Your task to perform on an android device: Search for Mexican restaurants on Maps Image 0: 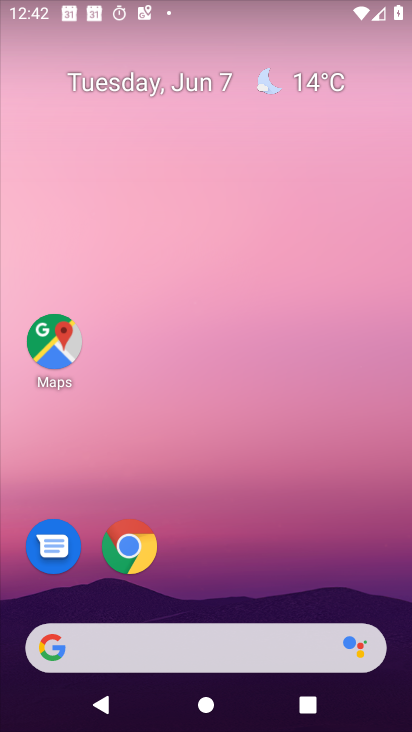
Step 0: click (27, 348)
Your task to perform on an android device: Search for Mexican restaurants on Maps Image 1: 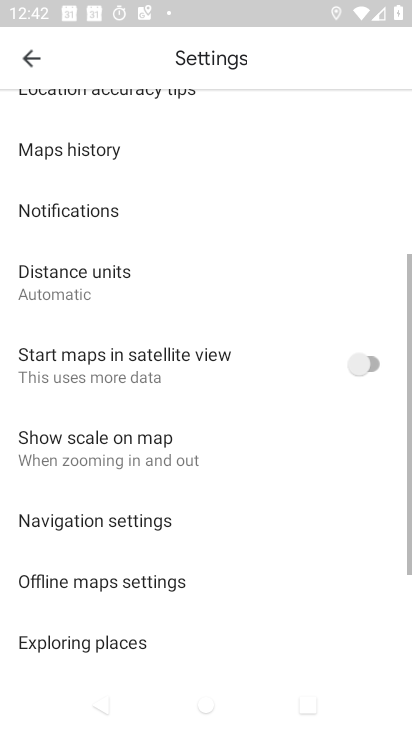
Step 1: click (36, 66)
Your task to perform on an android device: Search for Mexican restaurants on Maps Image 2: 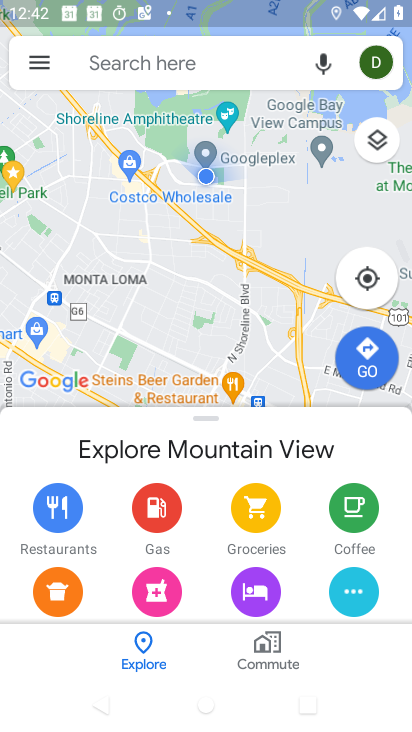
Step 2: click (186, 59)
Your task to perform on an android device: Search for Mexican restaurants on Maps Image 3: 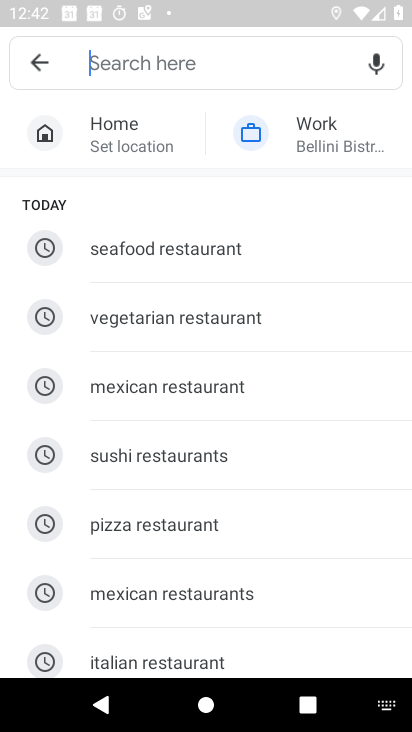
Step 3: type "mexican "
Your task to perform on an android device: Search for Mexican restaurants on Maps Image 4: 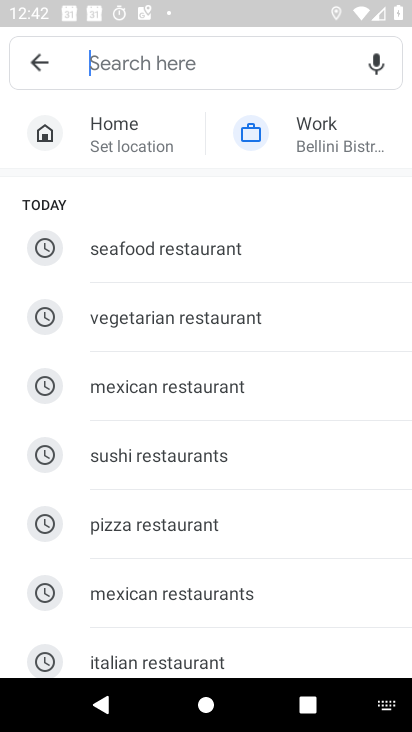
Step 4: click (202, 601)
Your task to perform on an android device: Search for Mexican restaurants on Maps Image 5: 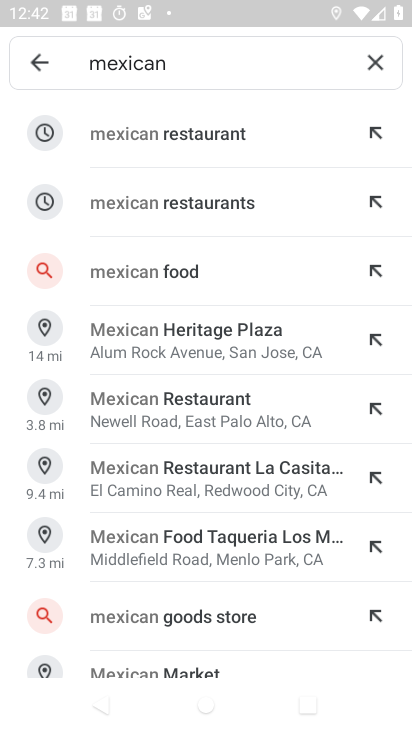
Step 5: click (209, 147)
Your task to perform on an android device: Search for Mexican restaurants on Maps Image 6: 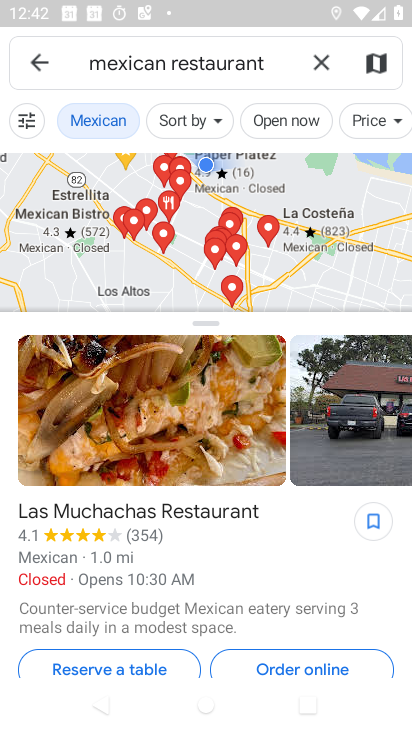
Step 6: task complete